Your task to perform on an android device: move an email to a new category in the gmail app Image 0: 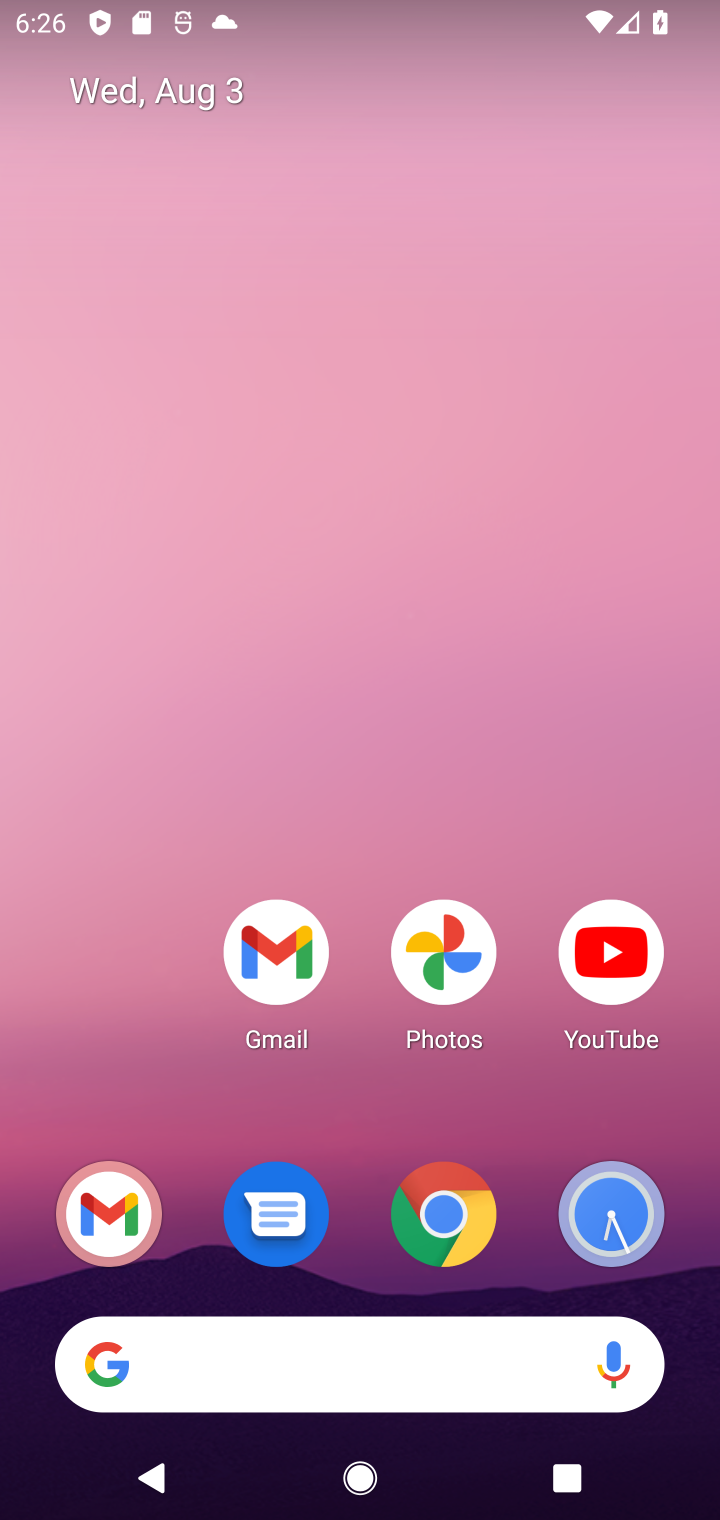
Step 0: drag from (96, 929) to (336, 46)
Your task to perform on an android device: move an email to a new category in the gmail app Image 1: 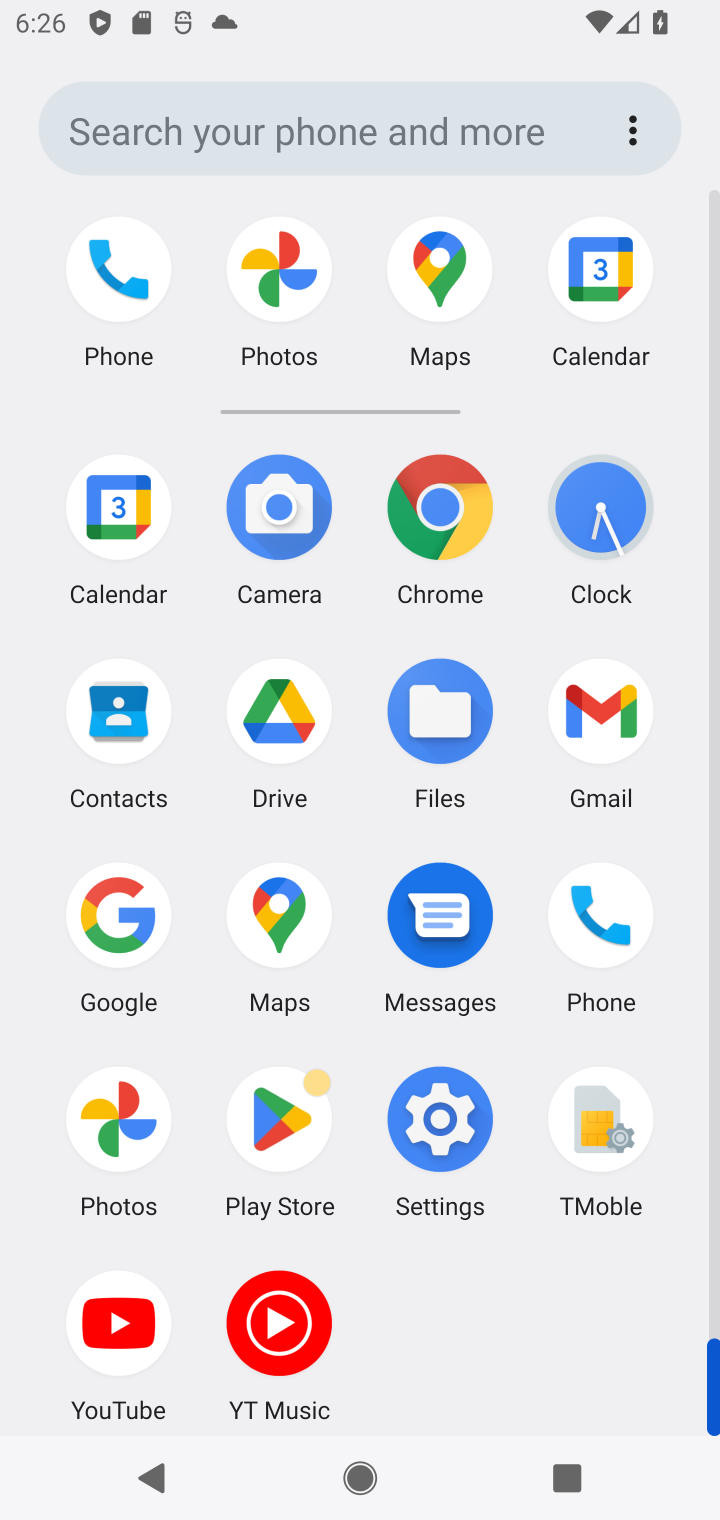
Step 1: click (605, 737)
Your task to perform on an android device: move an email to a new category in the gmail app Image 2: 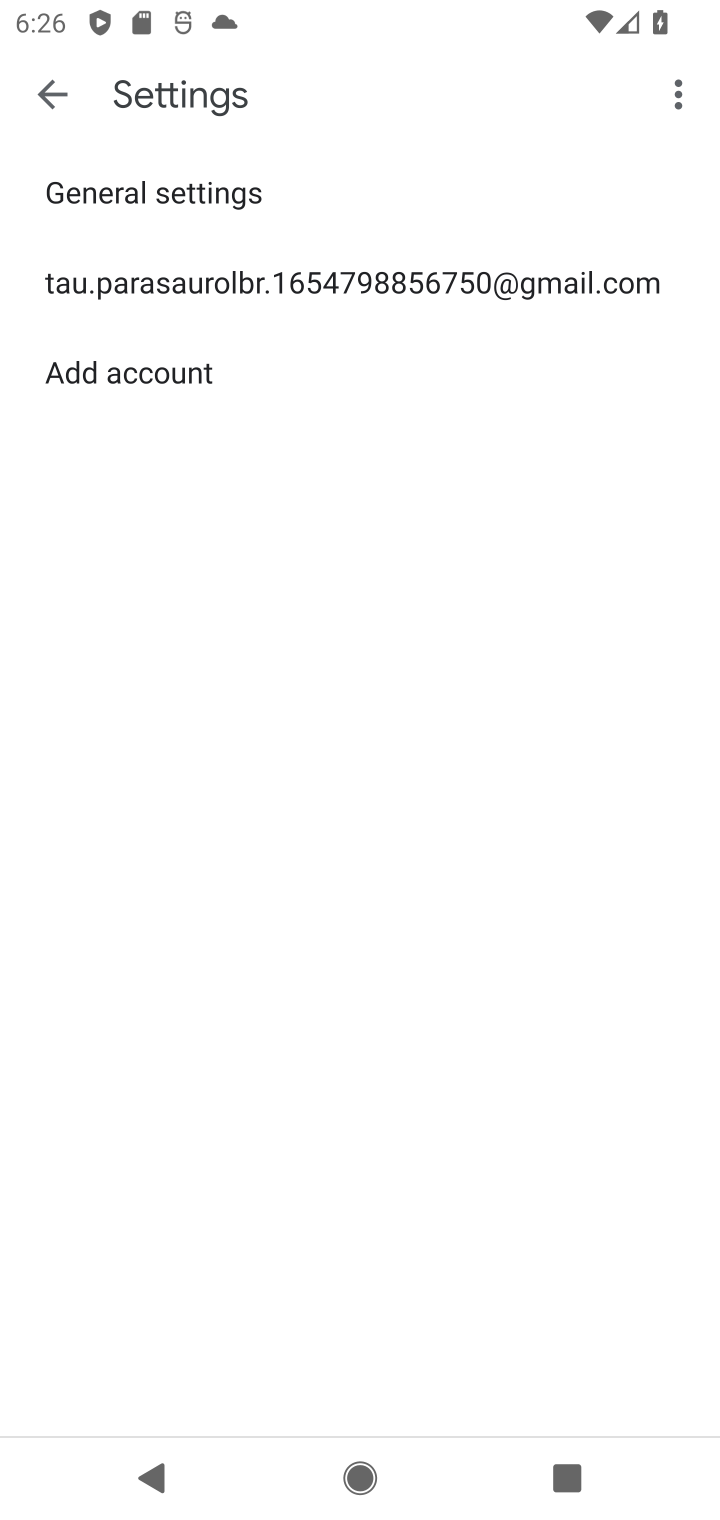
Step 2: click (163, 268)
Your task to perform on an android device: move an email to a new category in the gmail app Image 3: 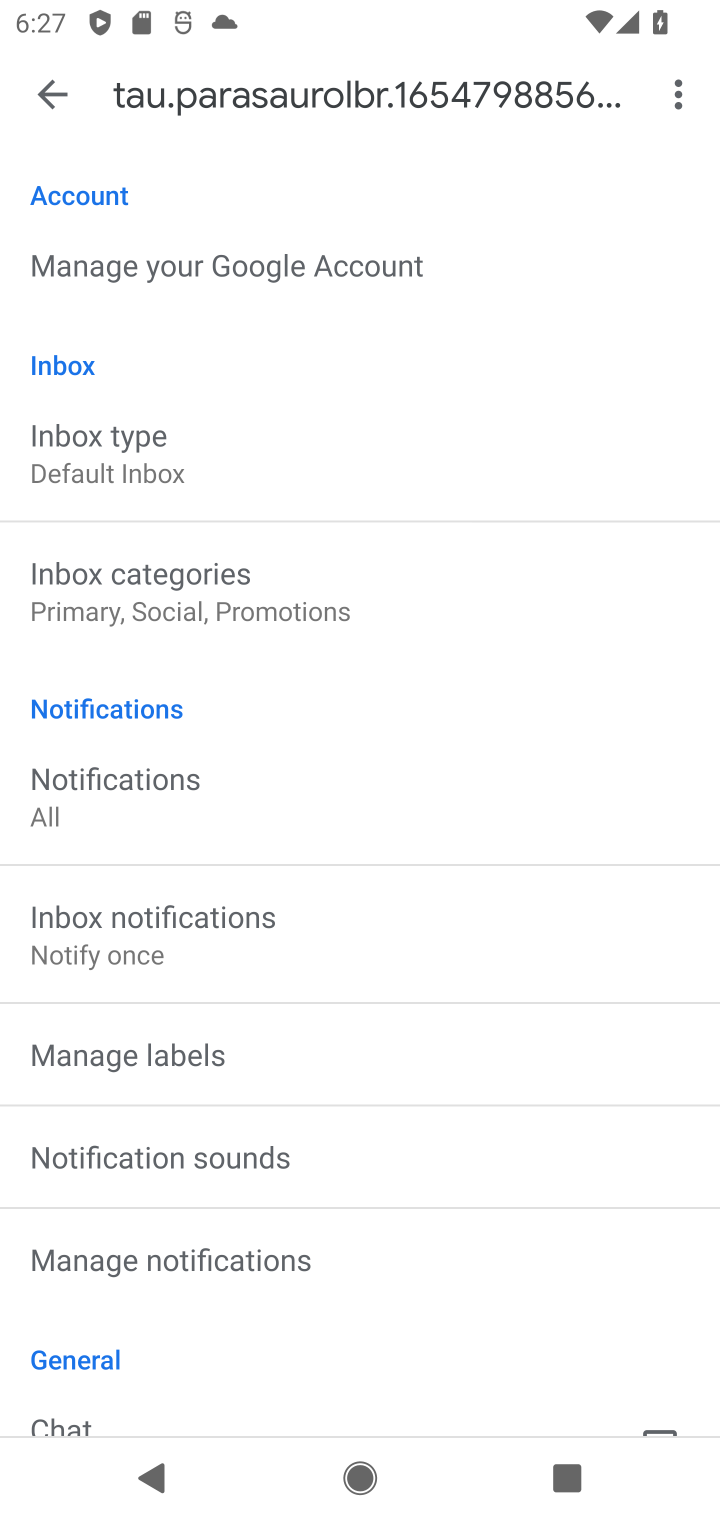
Step 3: drag from (508, 608) to (596, 1423)
Your task to perform on an android device: move an email to a new category in the gmail app Image 4: 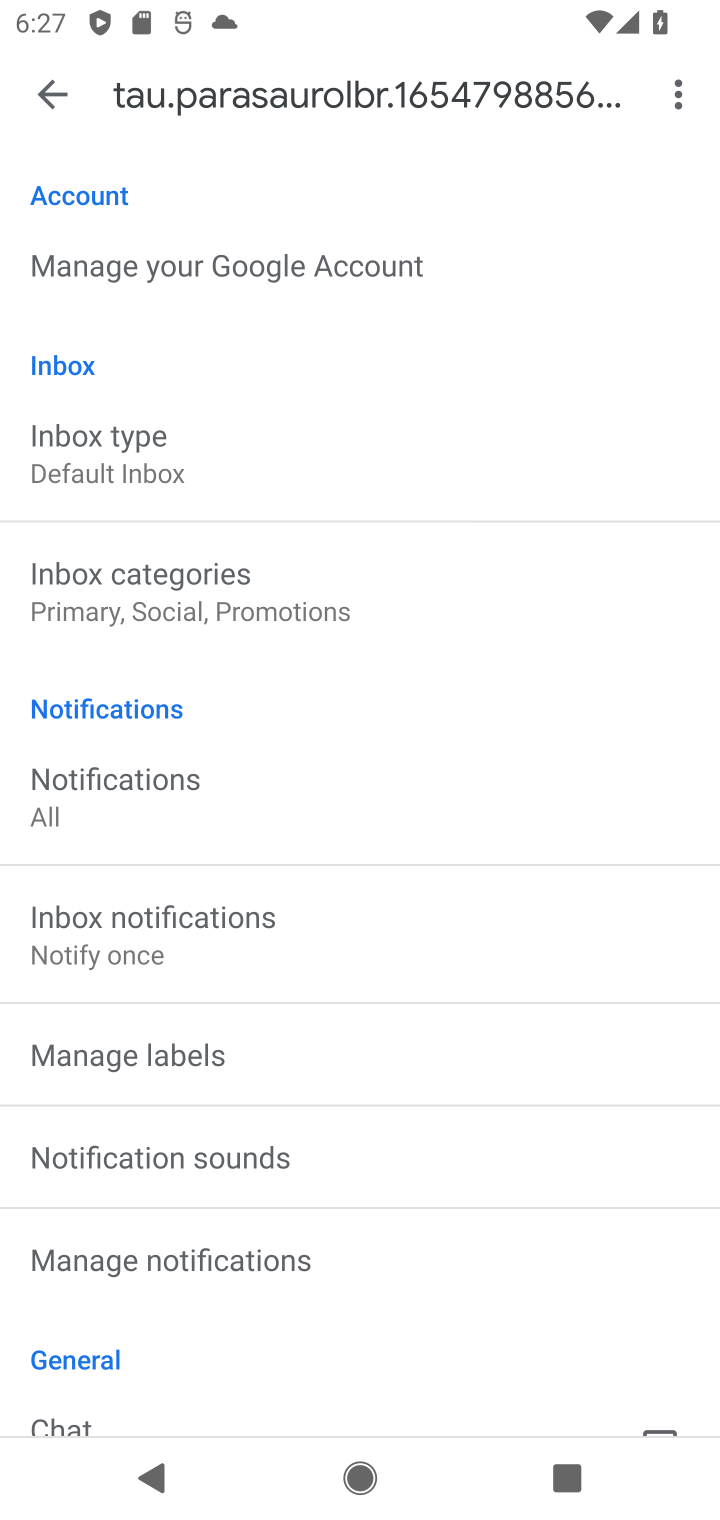
Step 4: click (58, 101)
Your task to perform on an android device: move an email to a new category in the gmail app Image 5: 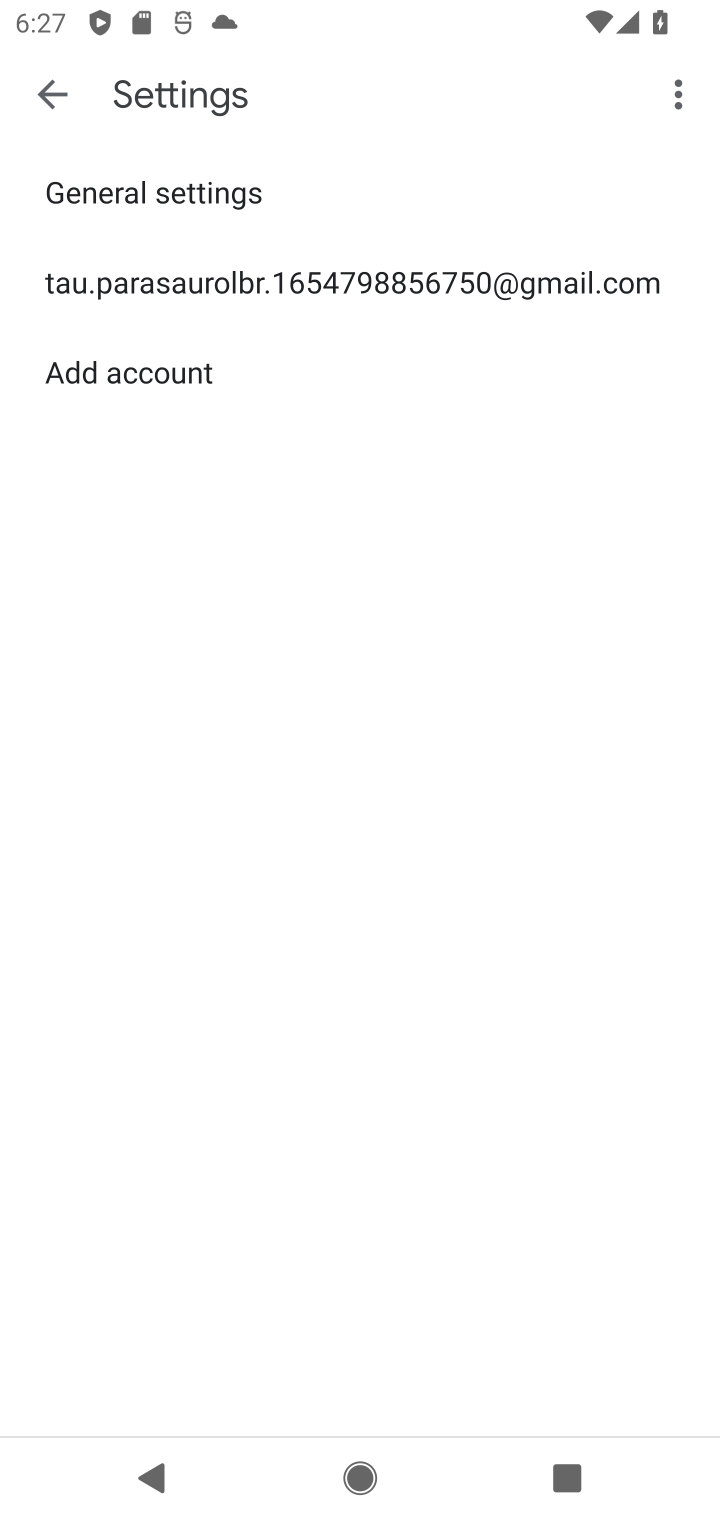
Step 5: click (58, 101)
Your task to perform on an android device: move an email to a new category in the gmail app Image 6: 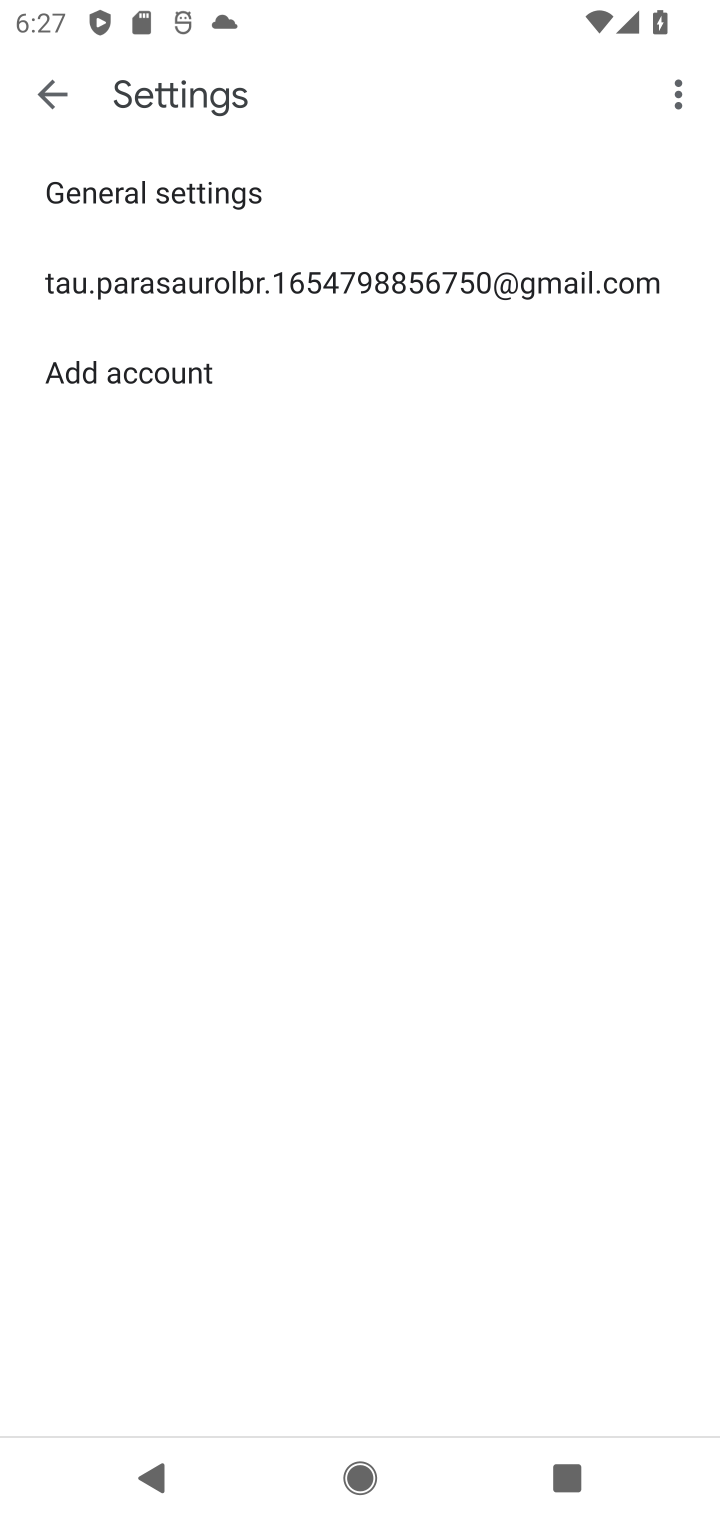
Step 6: click (65, 82)
Your task to perform on an android device: move an email to a new category in the gmail app Image 7: 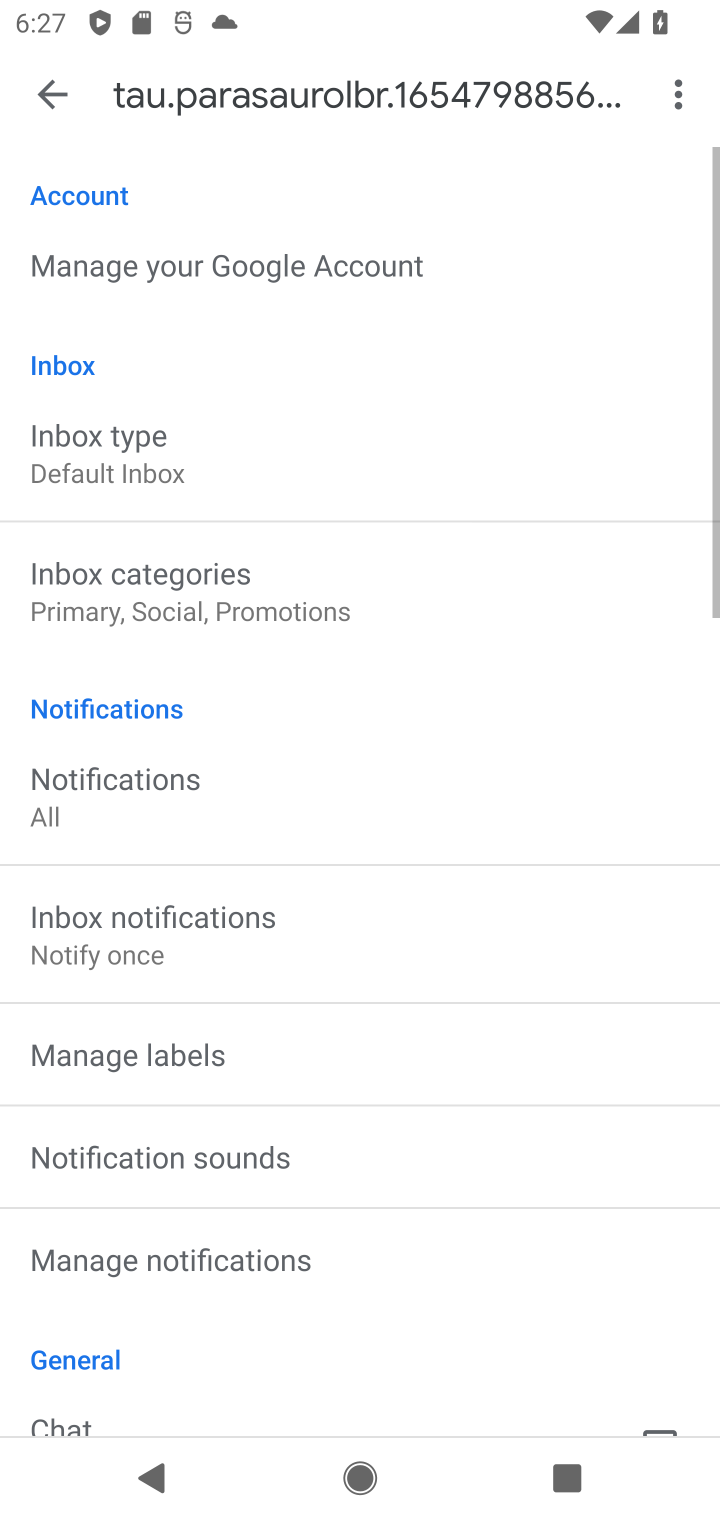
Step 7: click (63, 104)
Your task to perform on an android device: move an email to a new category in the gmail app Image 8: 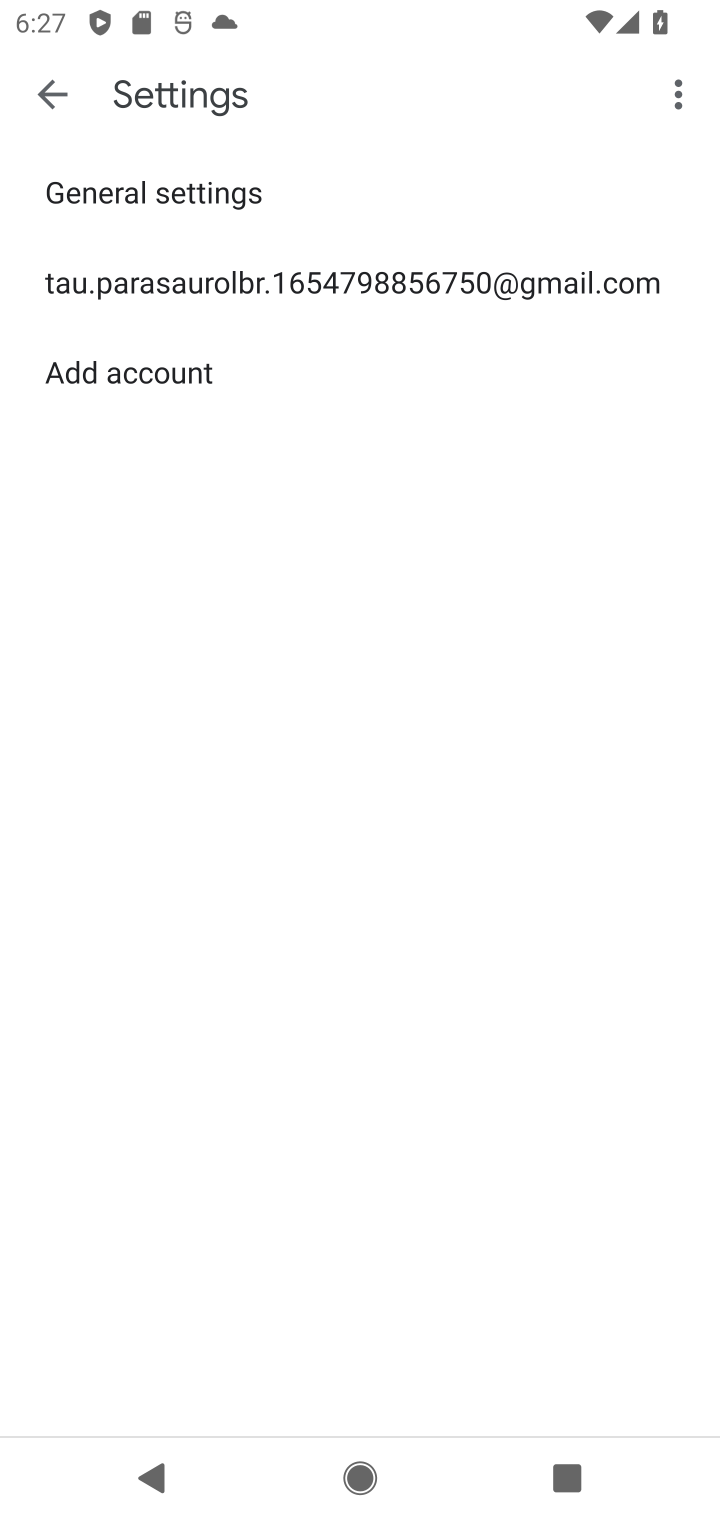
Step 8: click (58, 104)
Your task to perform on an android device: move an email to a new category in the gmail app Image 9: 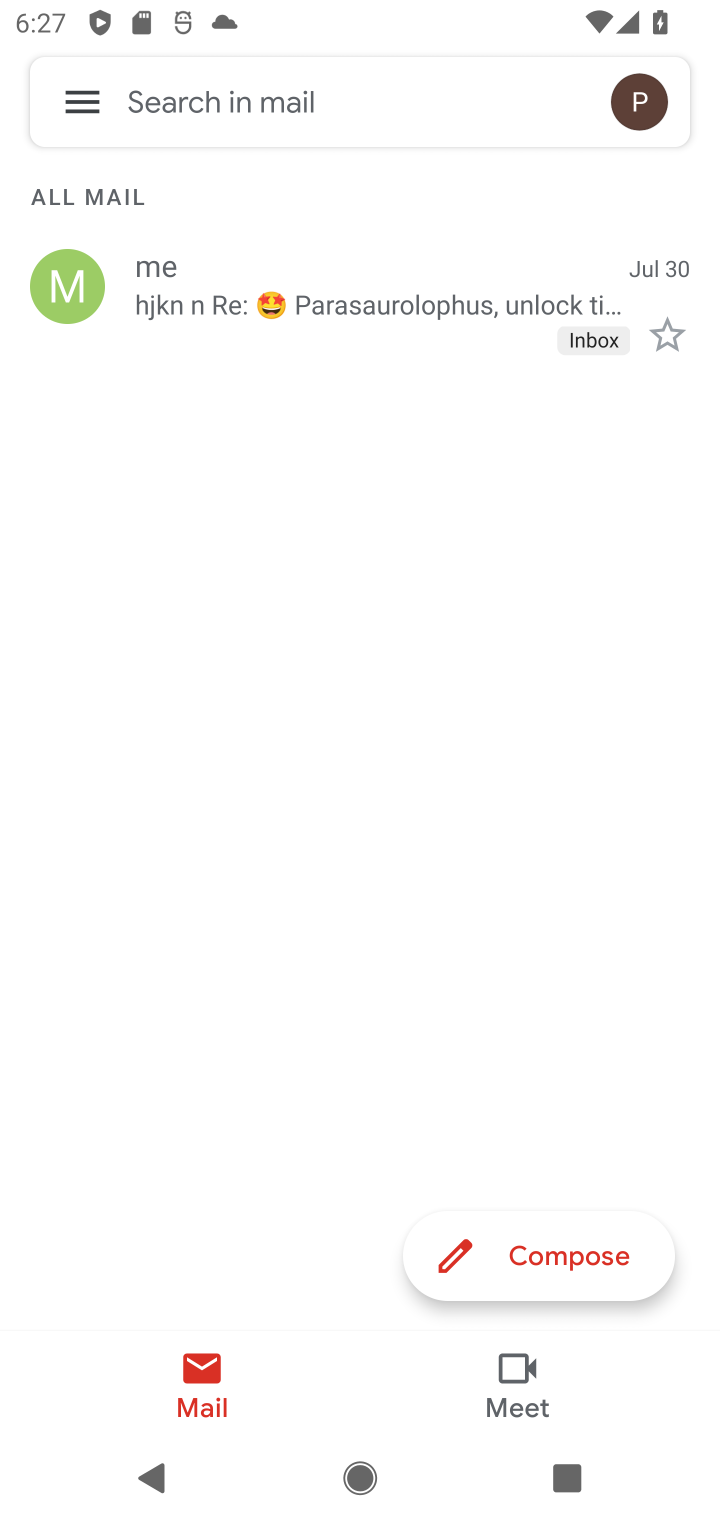
Step 9: click (341, 280)
Your task to perform on an android device: move an email to a new category in the gmail app Image 10: 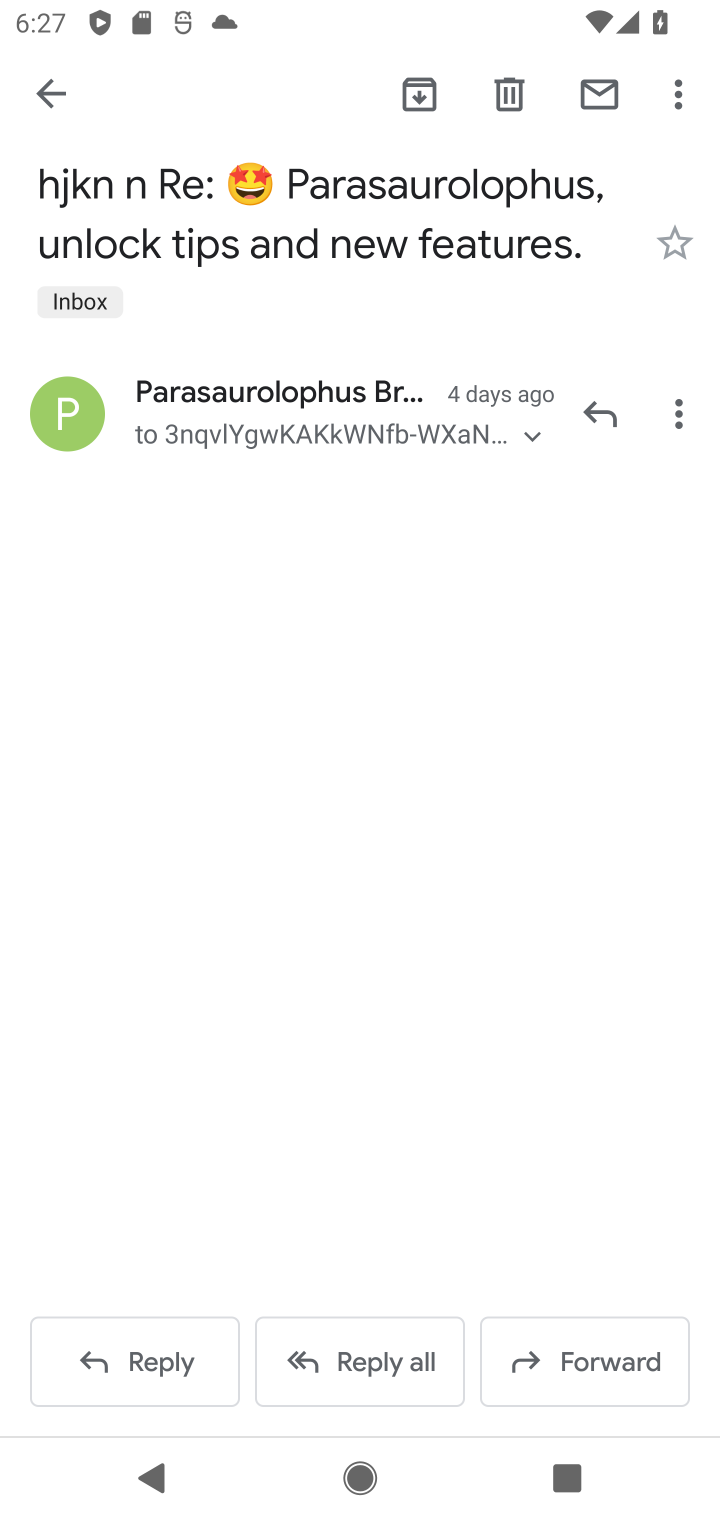
Step 10: click (684, 240)
Your task to perform on an android device: move an email to a new category in the gmail app Image 11: 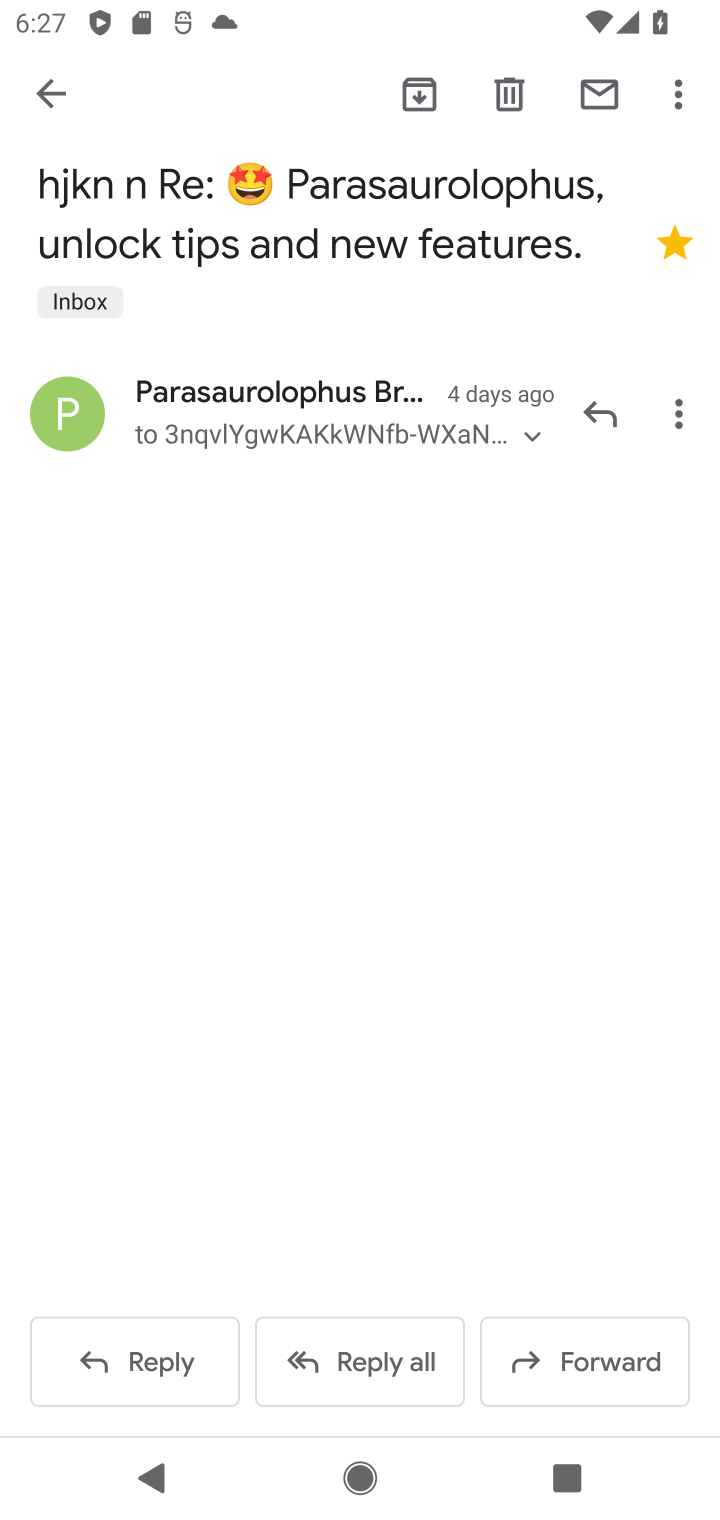
Step 11: task complete